Your task to perform on an android device: delete browsing data in the chrome app Image 0: 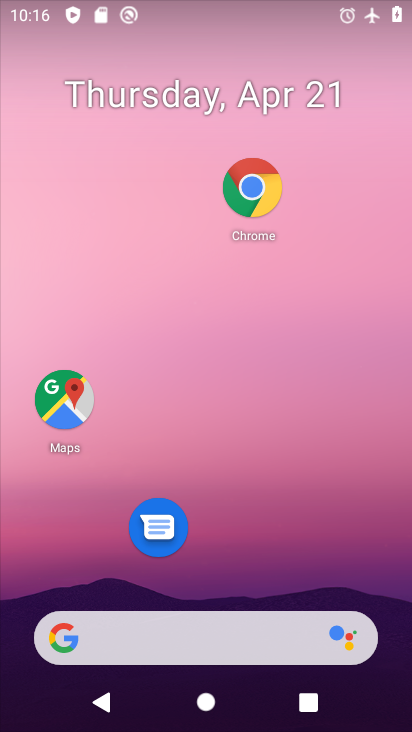
Step 0: drag from (243, 607) to (326, 72)
Your task to perform on an android device: delete browsing data in the chrome app Image 1: 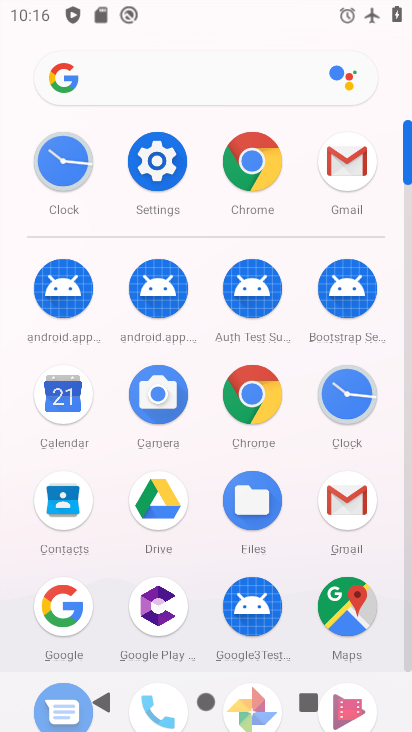
Step 1: click (267, 185)
Your task to perform on an android device: delete browsing data in the chrome app Image 2: 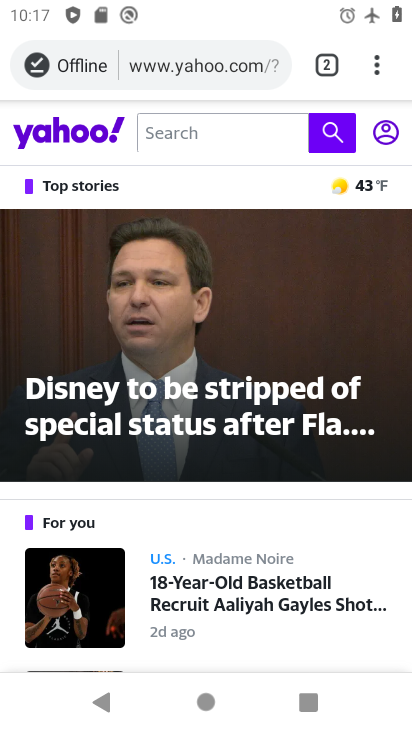
Step 2: click (372, 78)
Your task to perform on an android device: delete browsing data in the chrome app Image 3: 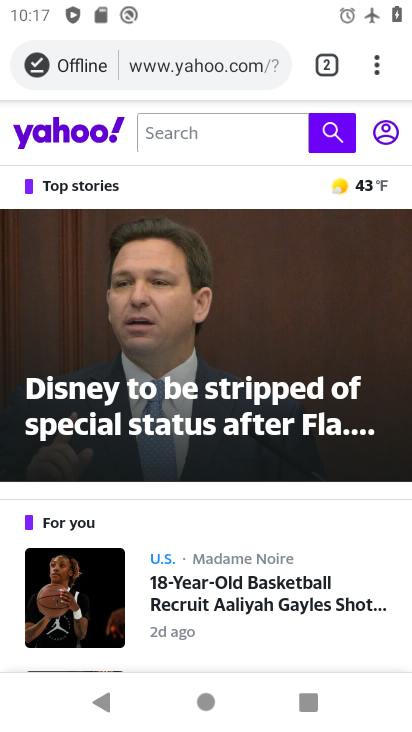
Step 3: click (379, 62)
Your task to perform on an android device: delete browsing data in the chrome app Image 4: 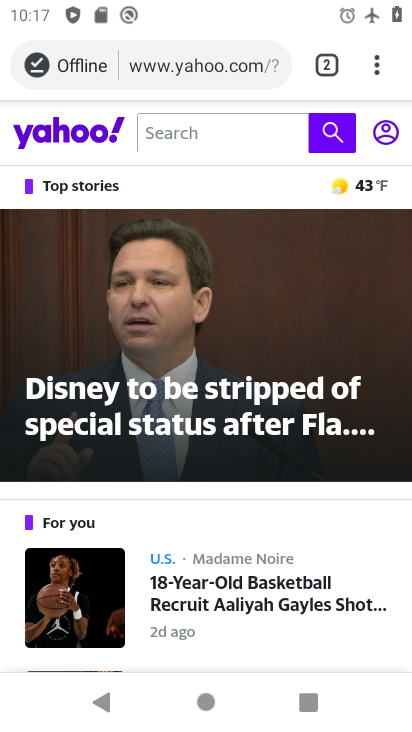
Step 4: click (379, 62)
Your task to perform on an android device: delete browsing data in the chrome app Image 5: 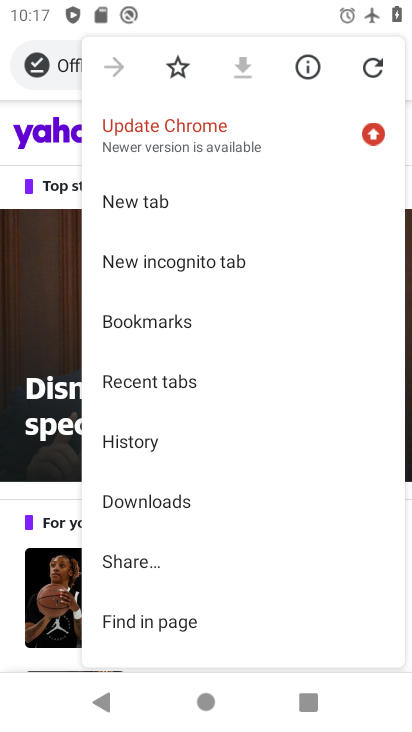
Step 5: click (243, 443)
Your task to perform on an android device: delete browsing data in the chrome app Image 6: 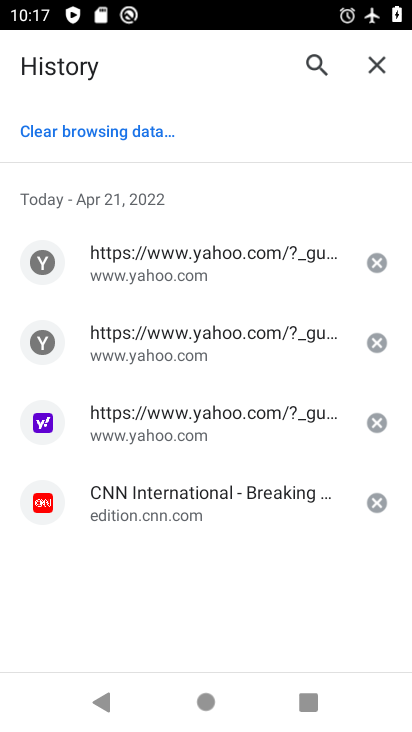
Step 6: click (126, 135)
Your task to perform on an android device: delete browsing data in the chrome app Image 7: 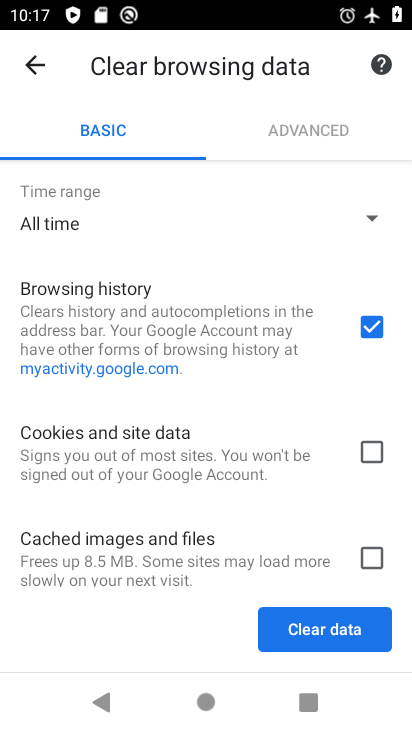
Step 7: click (345, 628)
Your task to perform on an android device: delete browsing data in the chrome app Image 8: 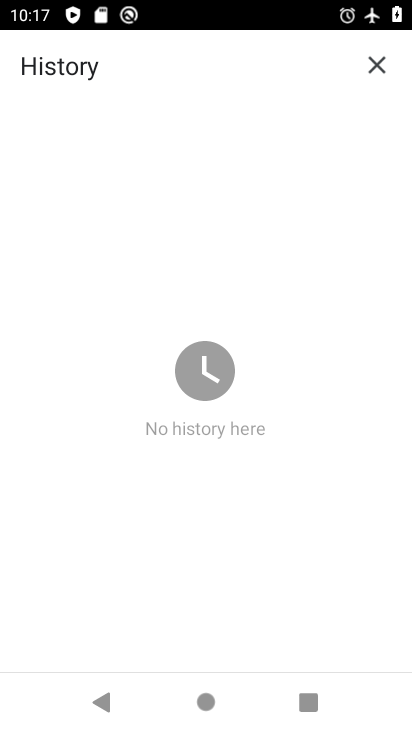
Step 8: task complete